Your task to perform on an android device: make emails show in primary in the gmail app Image 0: 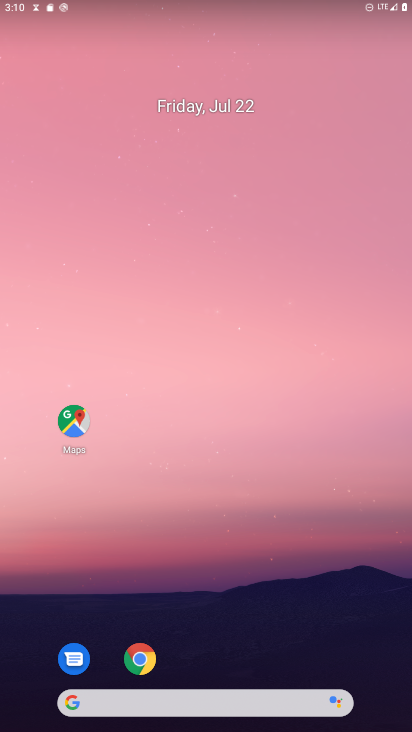
Step 0: drag from (253, 282) to (201, 76)
Your task to perform on an android device: make emails show in primary in the gmail app Image 1: 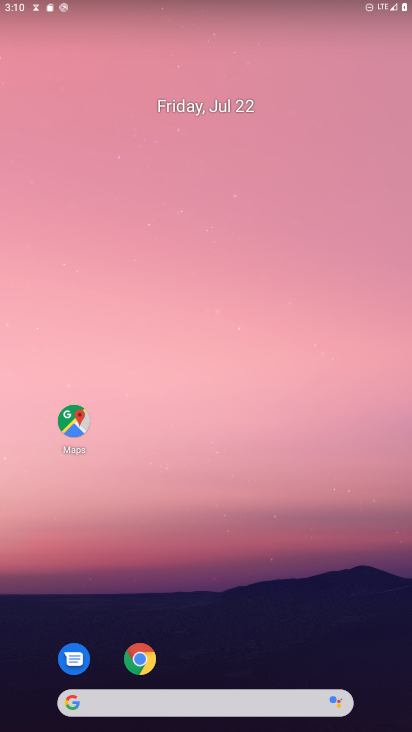
Step 1: drag from (269, 418) to (259, 3)
Your task to perform on an android device: make emails show in primary in the gmail app Image 2: 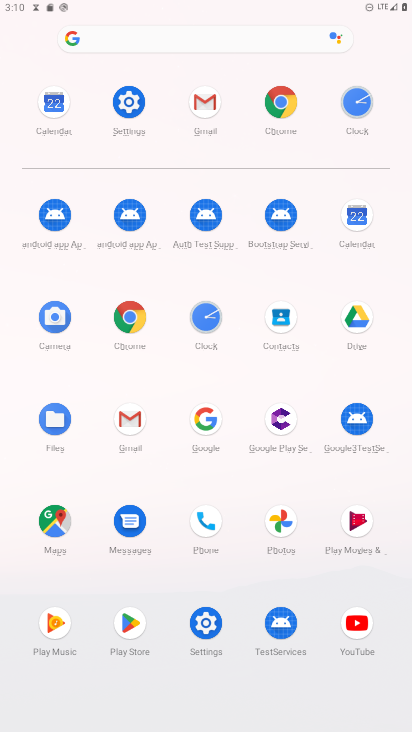
Step 2: click (197, 116)
Your task to perform on an android device: make emails show in primary in the gmail app Image 3: 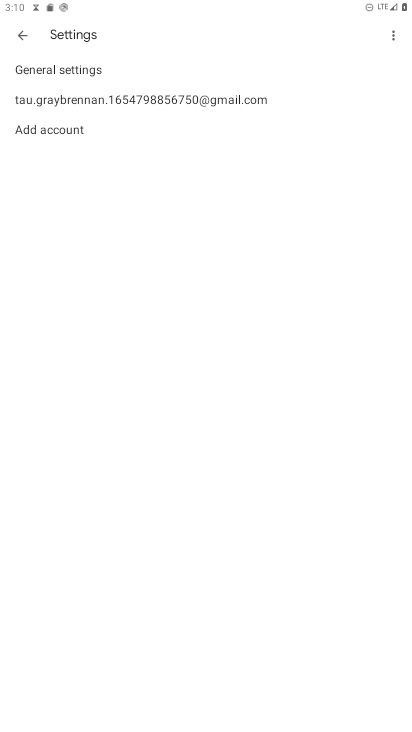
Step 3: click (28, 89)
Your task to perform on an android device: make emails show in primary in the gmail app Image 4: 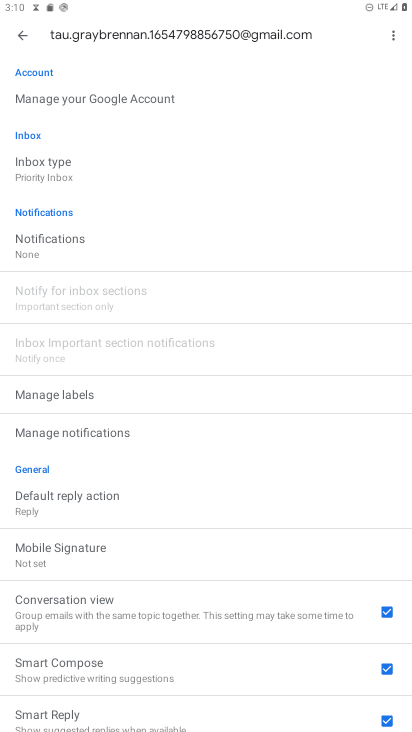
Step 4: click (36, 159)
Your task to perform on an android device: make emails show in primary in the gmail app Image 5: 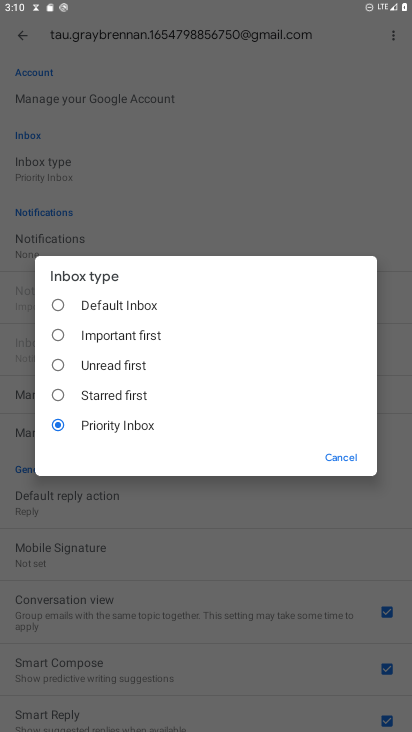
Step 5: click (131, 298)
Your task to perform on an android device: make emails show in primary in the gmail app Image 6: 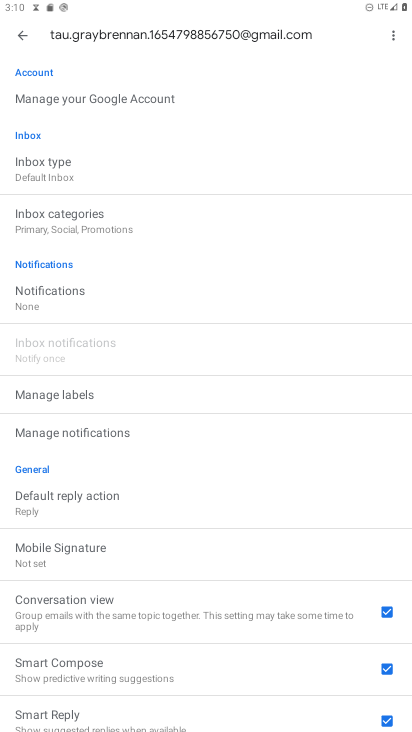
Step 6: task complete